Your task to perform on an android device: Open my contact list Image 0: 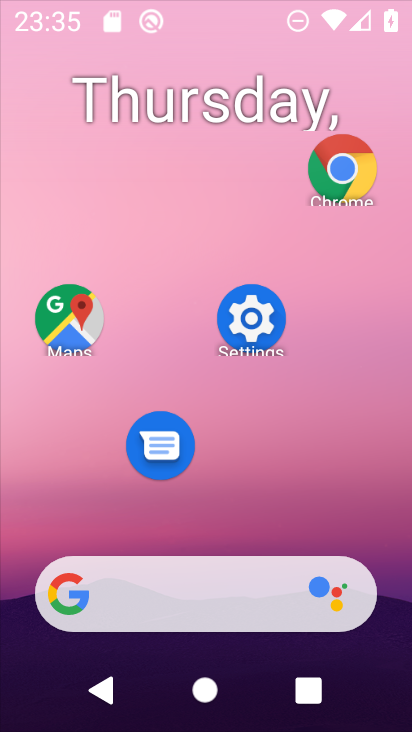
Step 0: click (315, 96)
Your task to perform on an android device: Open my contact list Image 1: 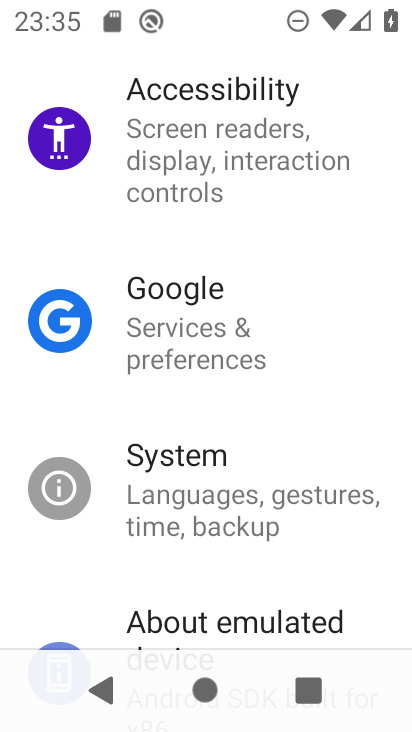
Step 1: drag from (285, 492) to (288, 88)
Your task to perform on an android device: Open my contact list Image 2: 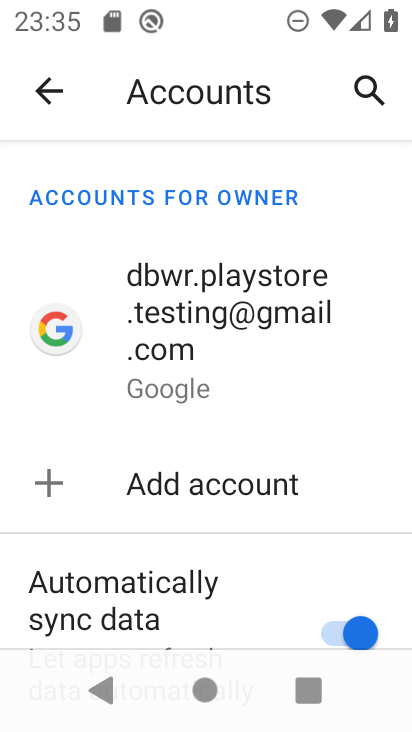
Step 2: press home button
Your task to perform on an android device: Open my contact list Image 3: 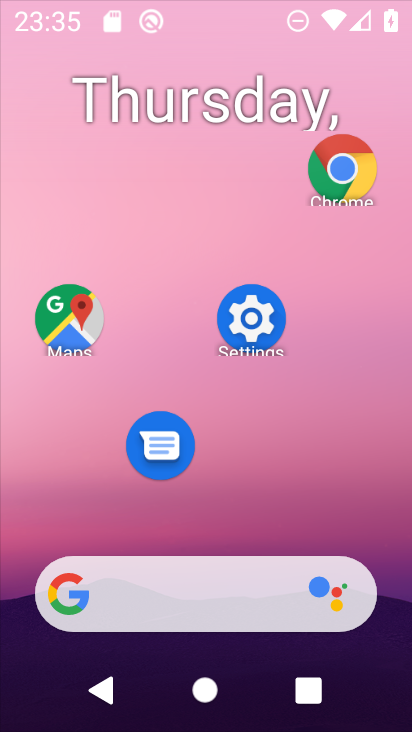
Step 3: drag from (207, 600) to (275, 158)
Your task to perform on an android device: Open my contact list Image 4: 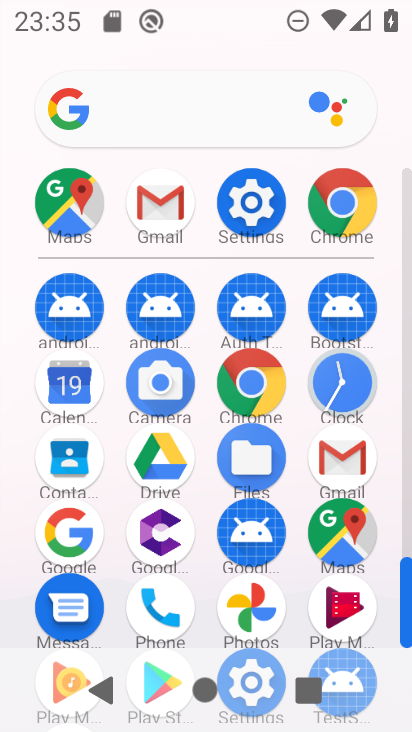
Step 4: click (327, 458)
Your task to perform on an android device: Open my contact list Image 5: 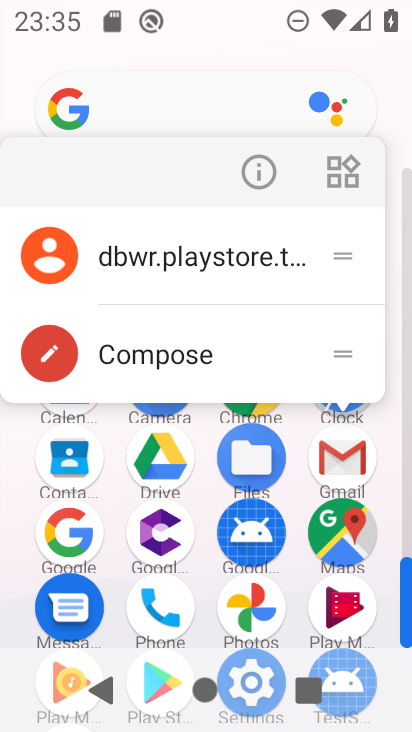
Step 5: click (173, 263)
Your task to perform on an android device: Open my contact list Image 6: 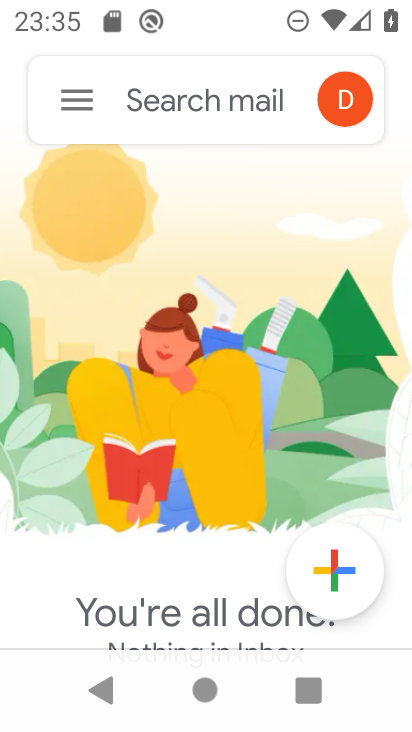
Step 6: press home button
Your task to perform on an android device: Open my contact list Image 7: 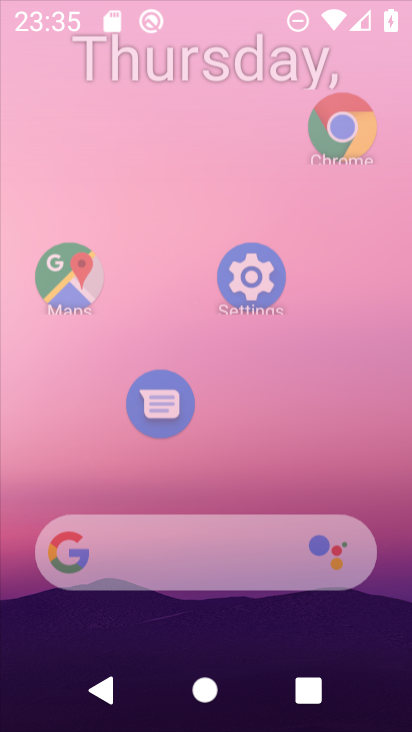
Step 7: drag from (214, 560) to (261, 67)
Your task to perform on an android device: Open my contact list Image 8: 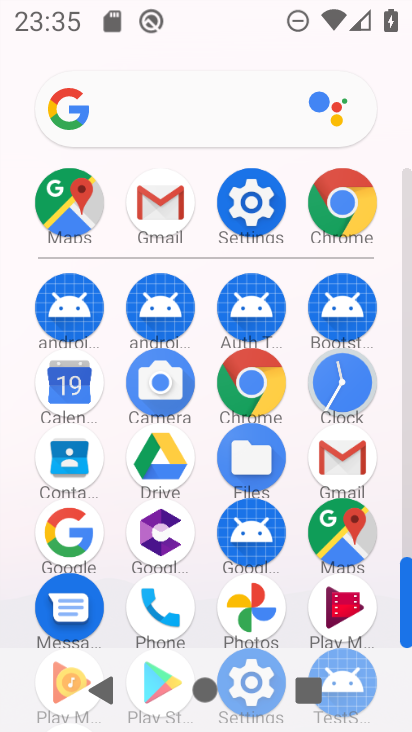
Step 8: click (69, 463)
Your task to perform on an android device: Open my contact list Image 9: 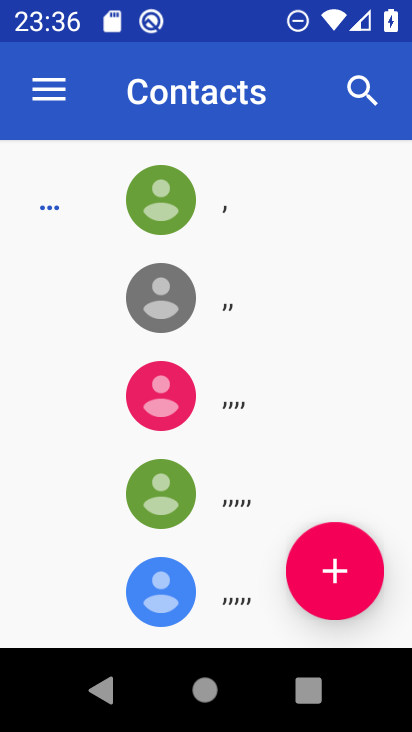
Step 9: task complete